Your task to perform on an android device: turn on improve location accuracy Image 0: 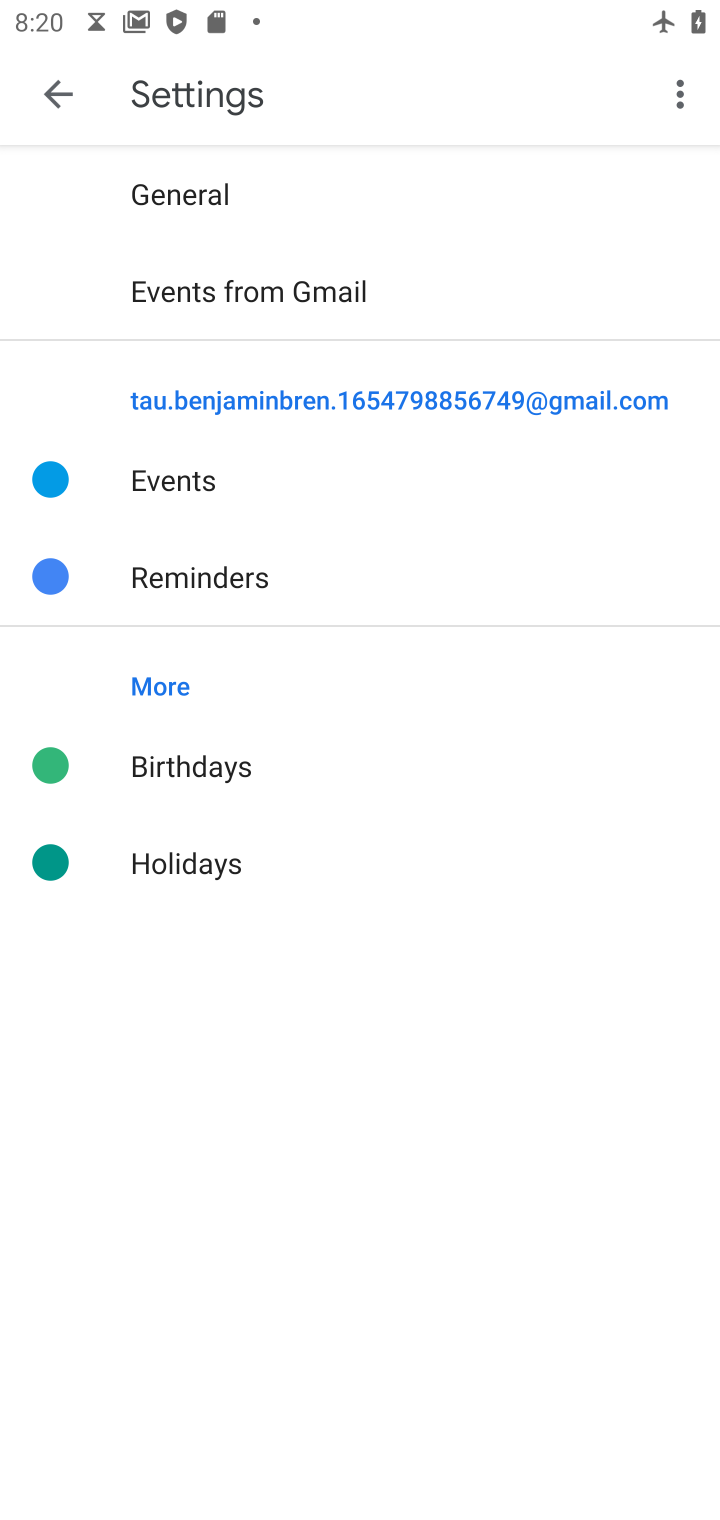
Step 0: press home button
Your task to perform on an android device: turn on improve location accuracy Image 1: 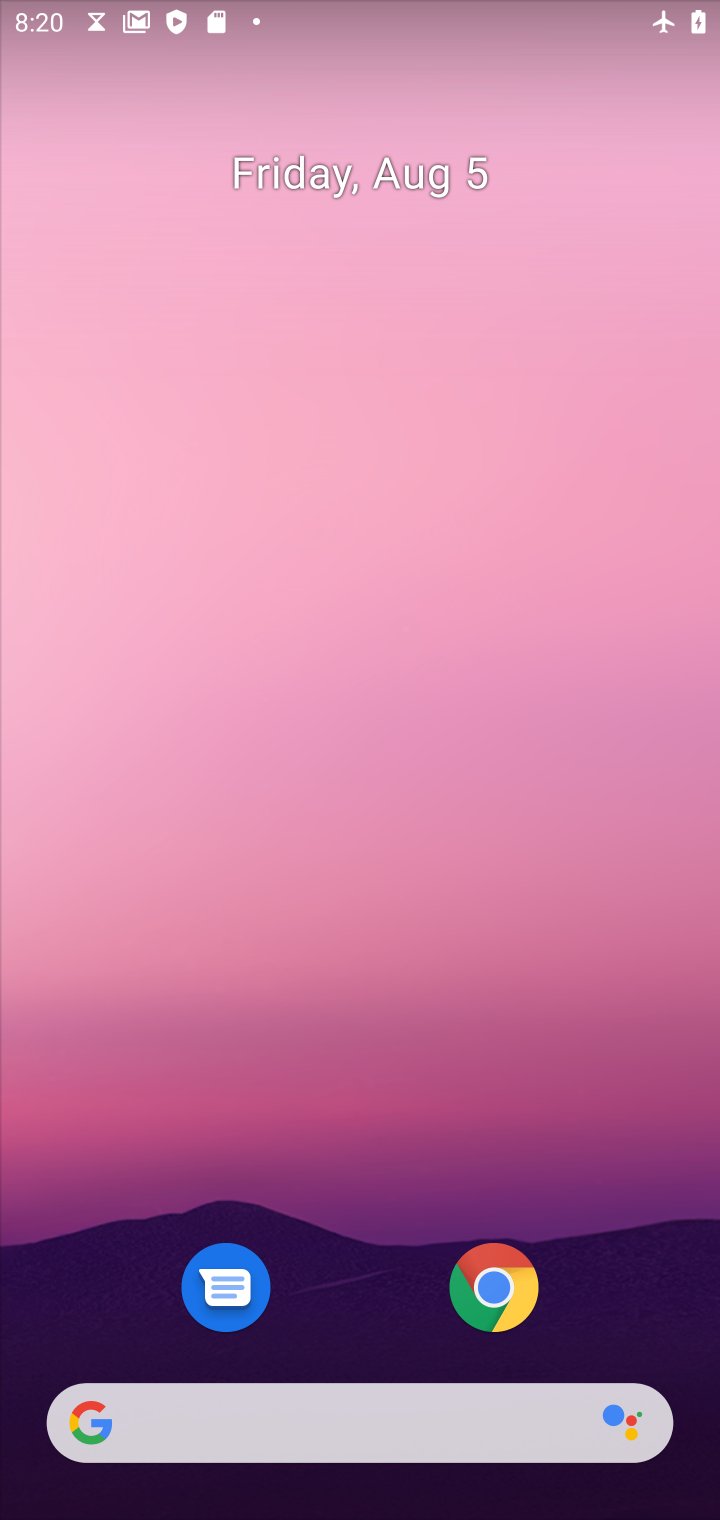
Step 1: drag from (345, 1276) to (305, 274)
Your task to perform on an android device: turn on improve location accuracy Image 2: 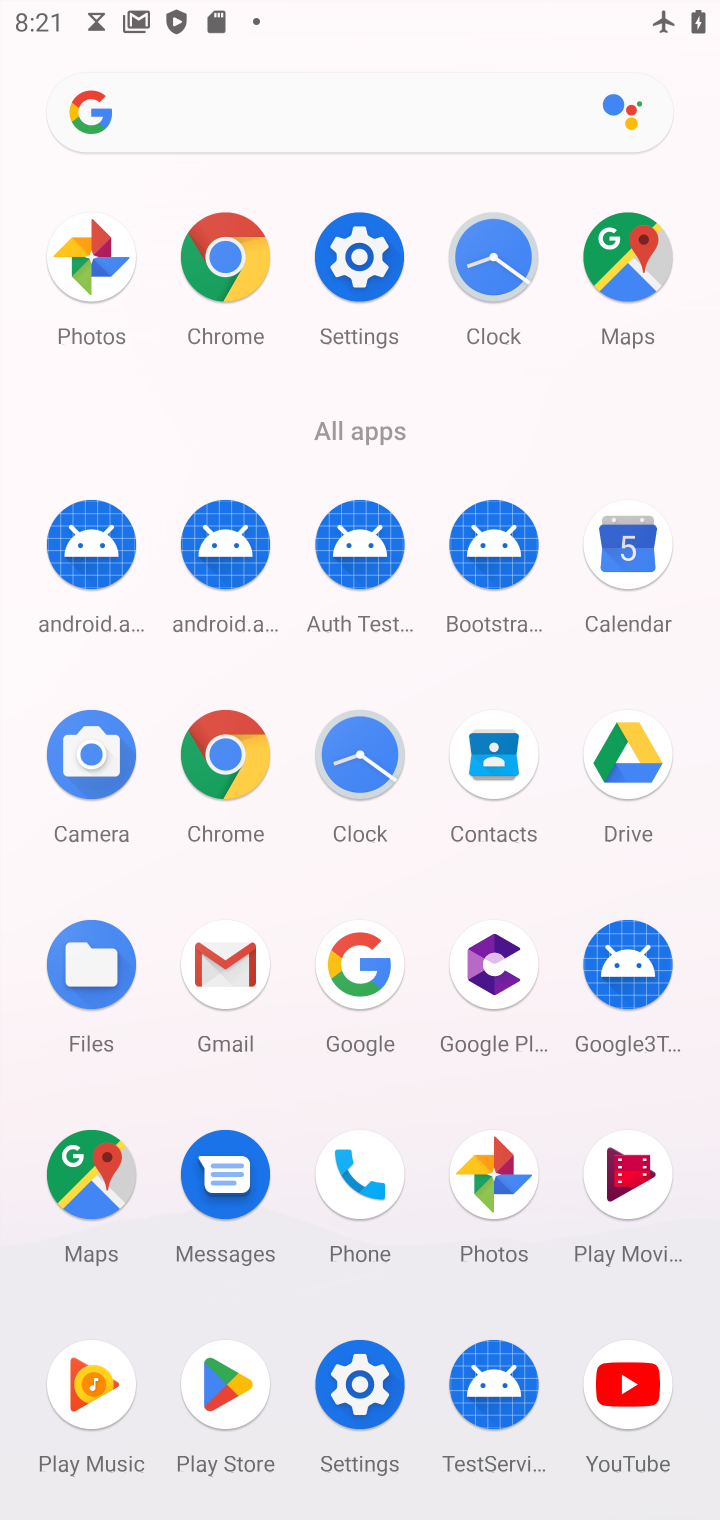
Step 2: click (356, 243)
Your task to perform on an android device: turn on improve location accuracy Image 3: 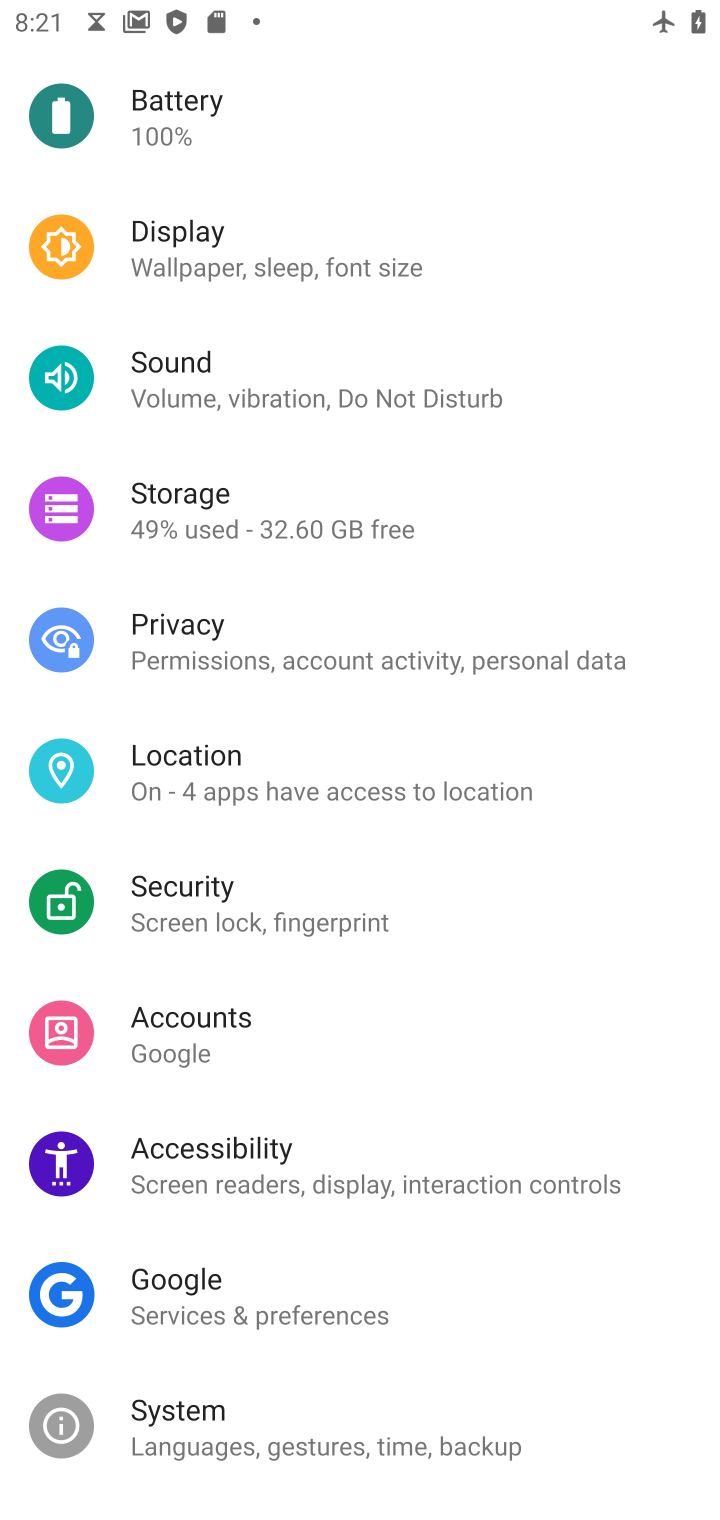
Step 3: click (207, 778)
Your task to perform on an android device: turn on improve location accuracy Image 4: 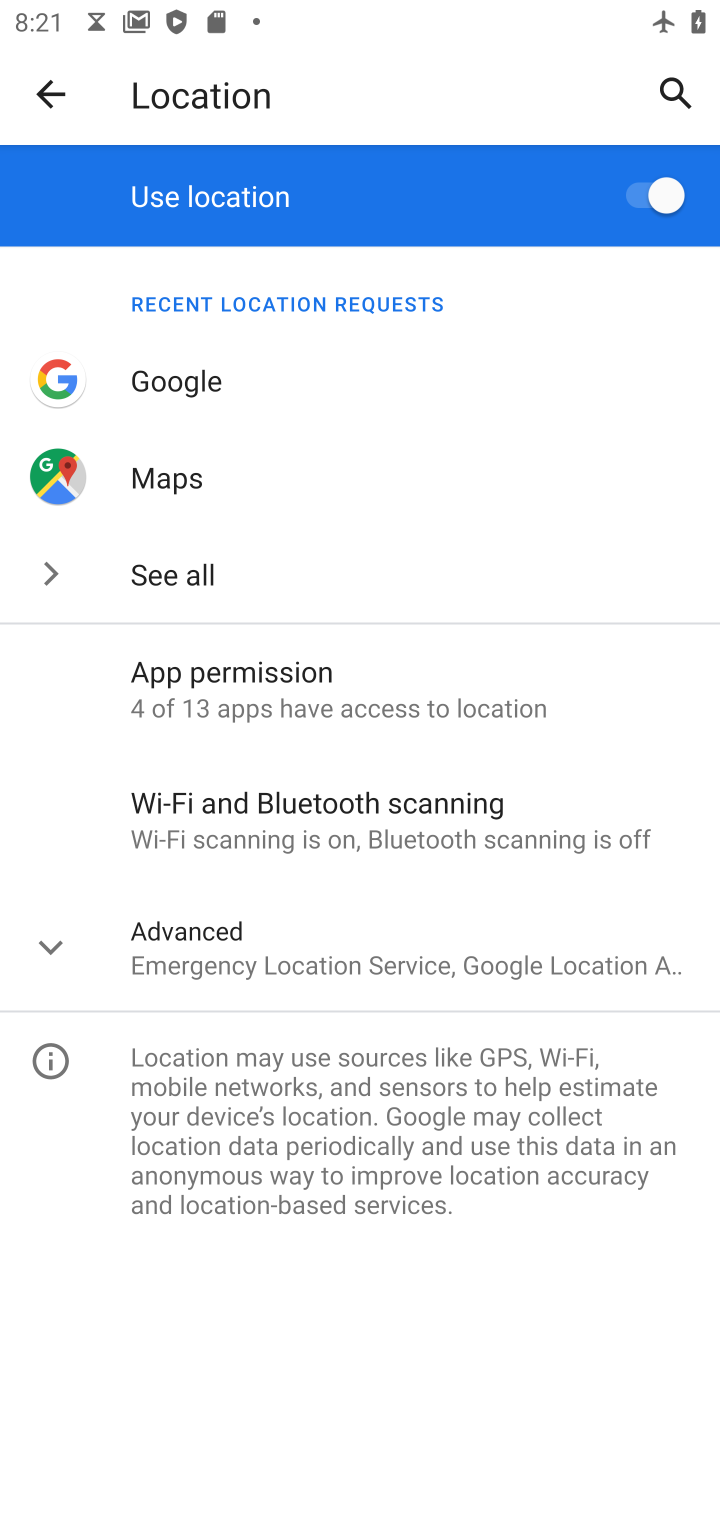
Step 4: click (145, 969)
Your task to perform on an android device: turn on improve location accuracy Image 5: 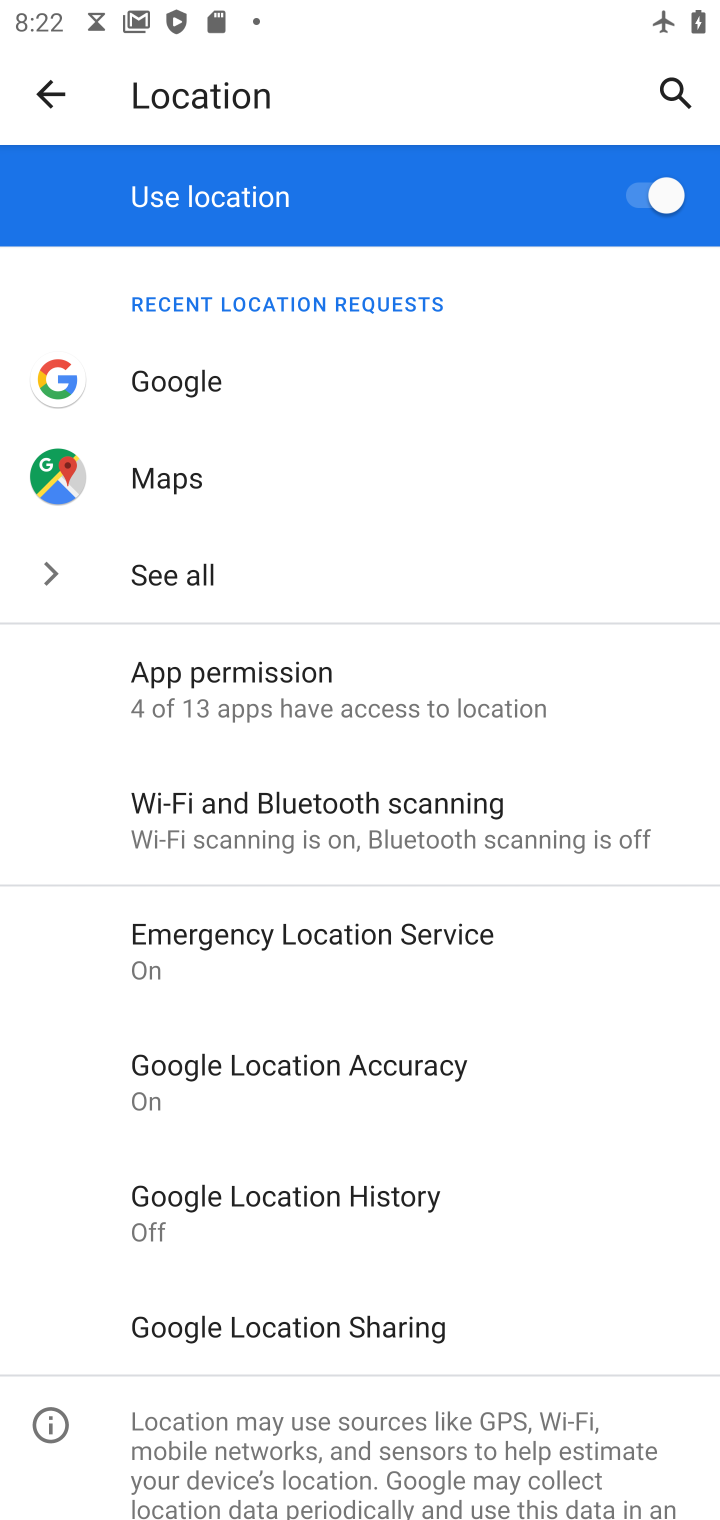
Step 5: click (313, 1054)
Your task to perform on an android device: turn on improve location accuracy Image 6: 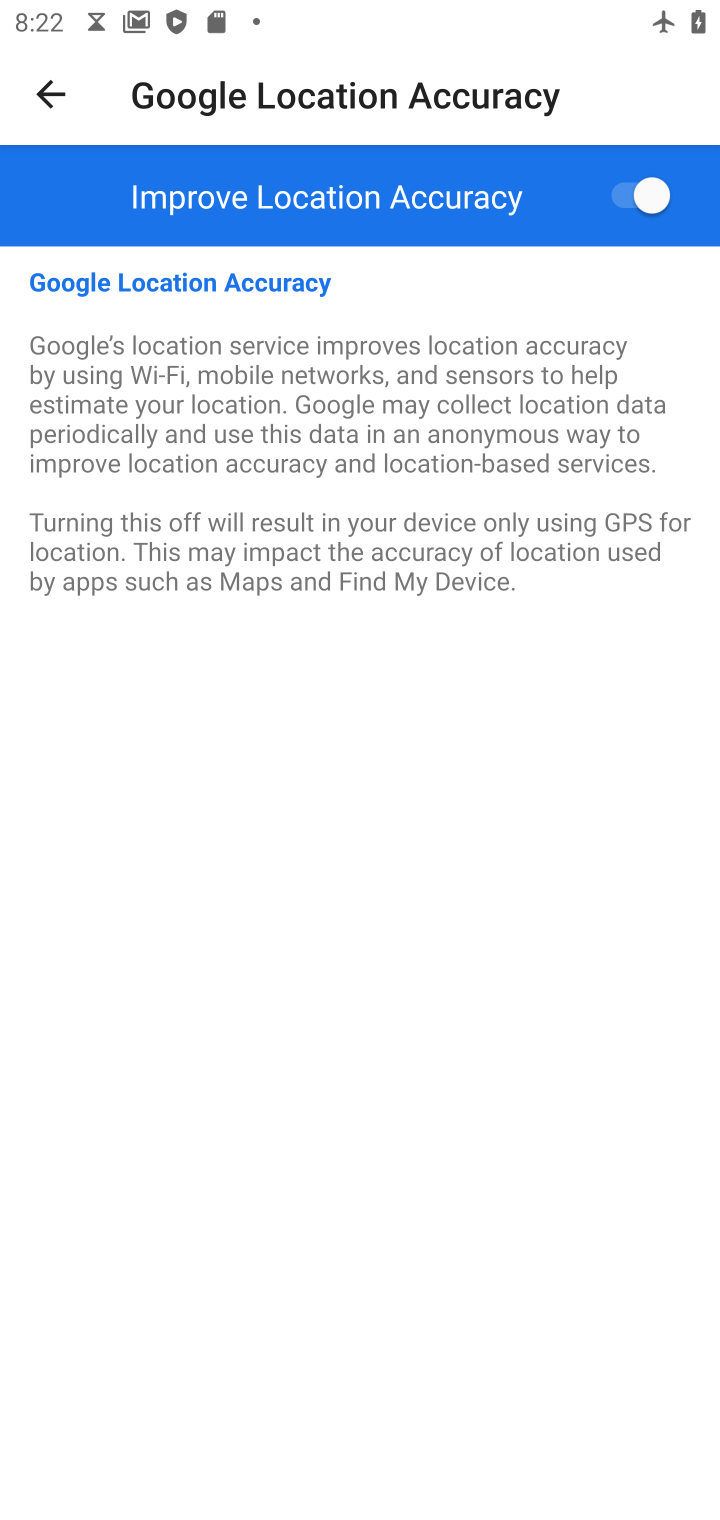
Step 6: task complete